Your task to perform on an android device: turn off sleep mode Image 0: 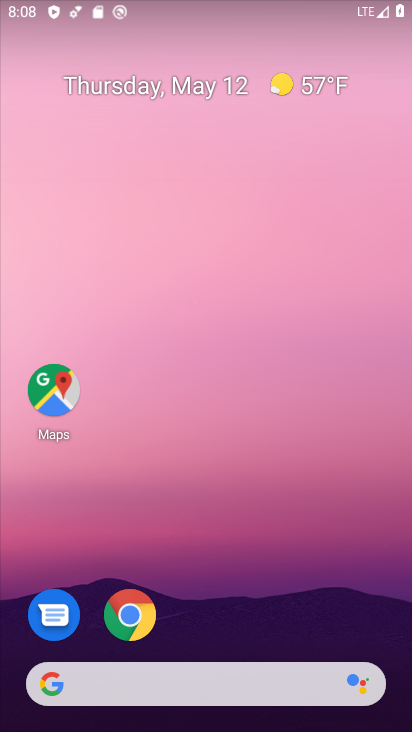
Step 0: drag from (286, 603) to (236, 35)
Your task to perform on an android device: turn off sleep mode Image 1: 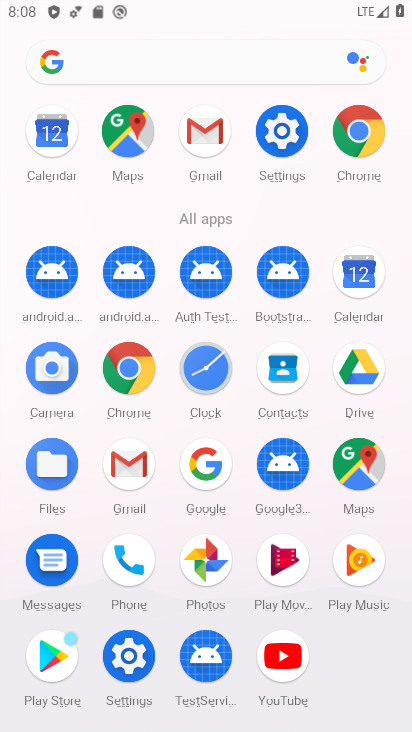
Step 1: click (126, 654)
Your task to perform on an android device: turn off sleep mode Image 2: 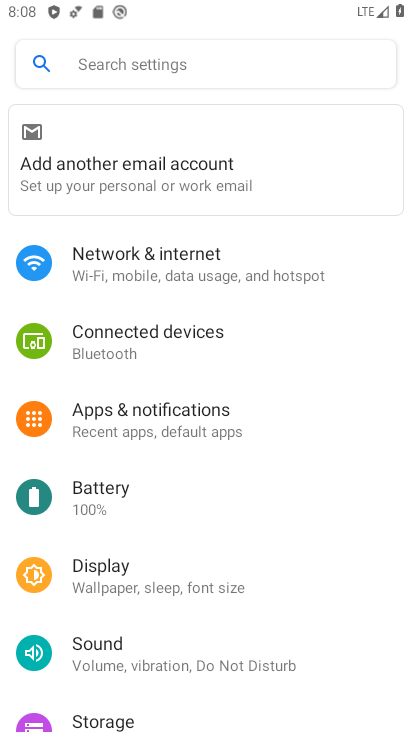
Step 2: click (163, 563)
Your task to perform on an android device: turn off sleep mode Image 3: 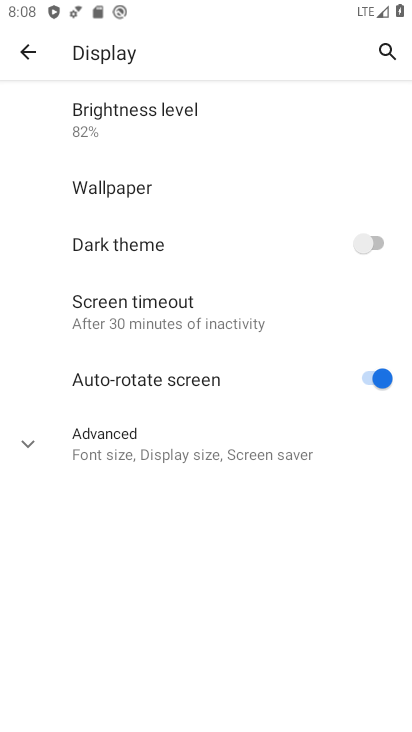
Step 3: click (43, 443)
Your task to perform on an android device: turn off sleep mode Image 4: 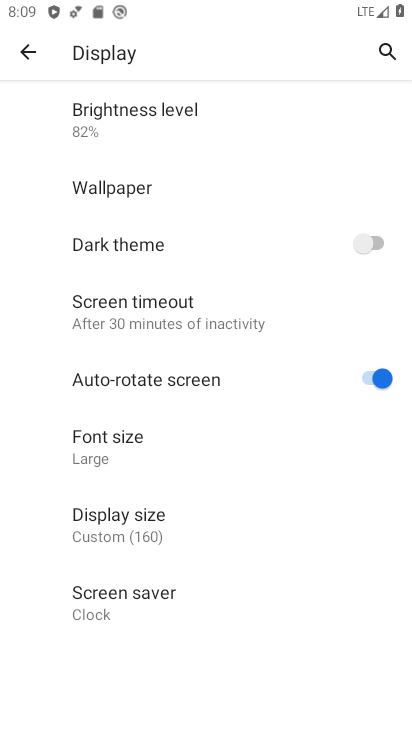
Step 4: task complete